Your task to perform on an android device: Open Google Maps and go to "Timeline" Image 0: 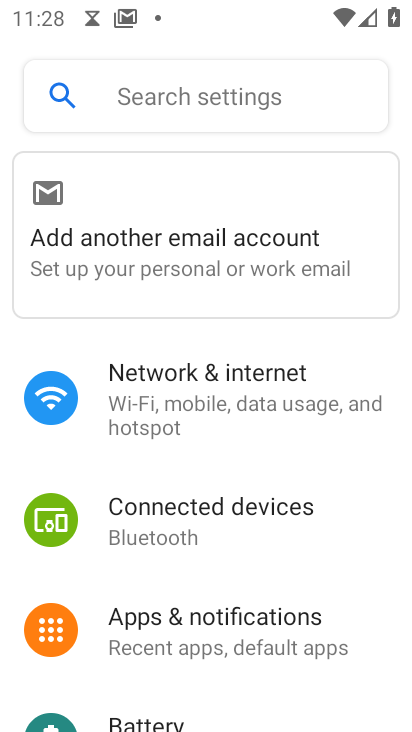
Step 0: press home button
Your task to perform on an android device: Open Google Maps and go to "Timeline" Image 1: 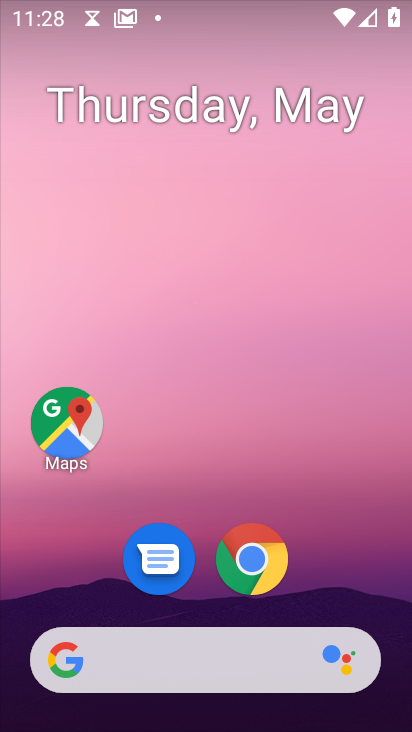
Step 1: drag from (216, 725) to (215, 214)
Your task to perform on an android device: Open Google Maps and go to "Timeline" Image 2: 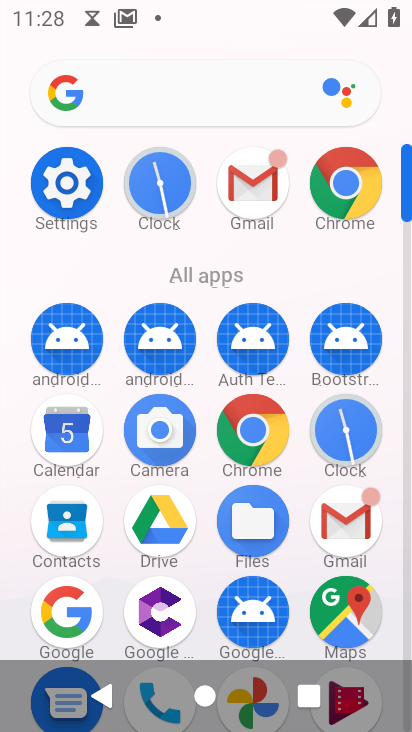
Step 2: click (328, 615)
Your task to perform on an android device: Open Google Maps and go to "Timeline" Image 3: 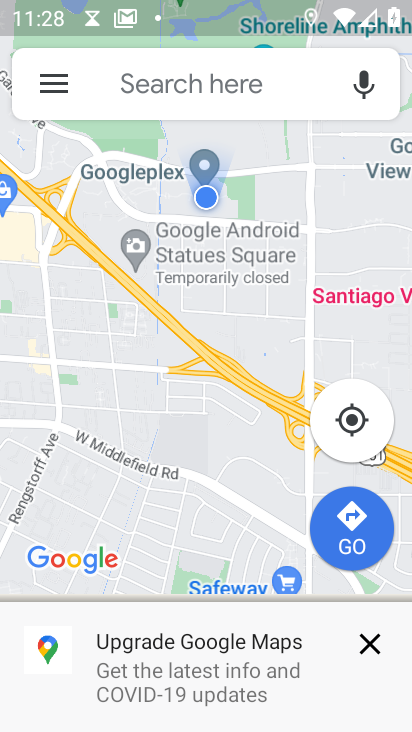
Step 3: click (51, 93)
Your task to perform on an android device: Open Google Maps and go to "Timeline" Image 4: 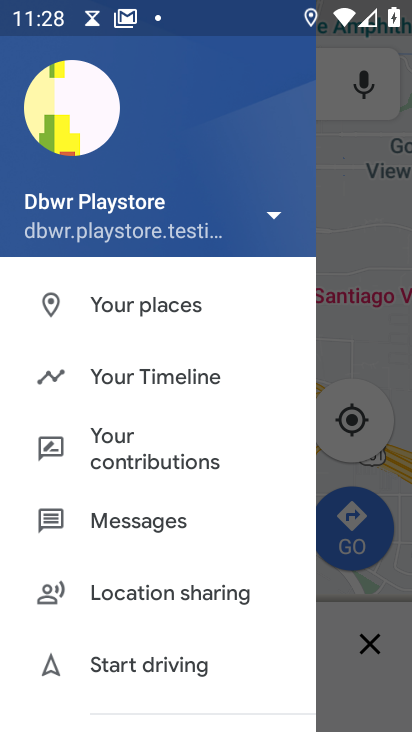
Step 4: click (163, 370)
Your task to perform on an android device: Open Google Maps and go to "Timeline" Image 5: 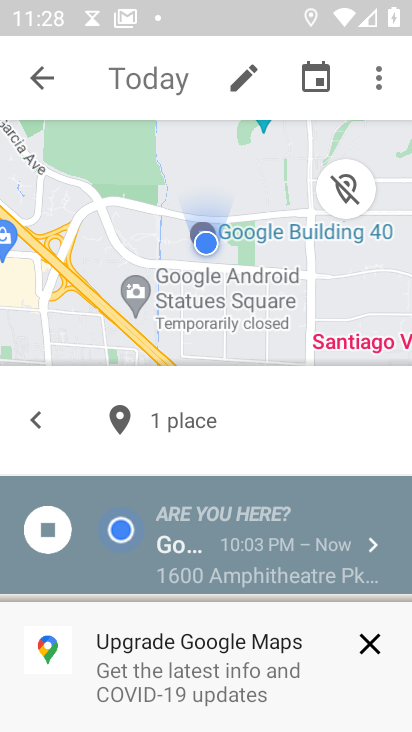
Step 5: task complete